Your task to perform on an android device: Open Google Chrome Image 0: 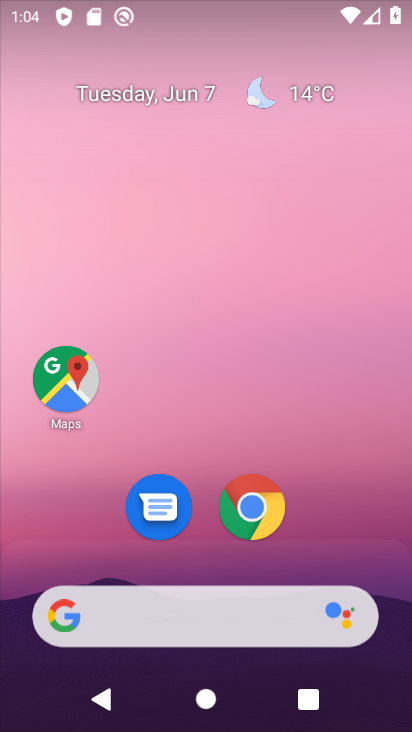
Step 0: click (251, 504)
Your task to perform on an android device: Open Google Chrome Image 1: 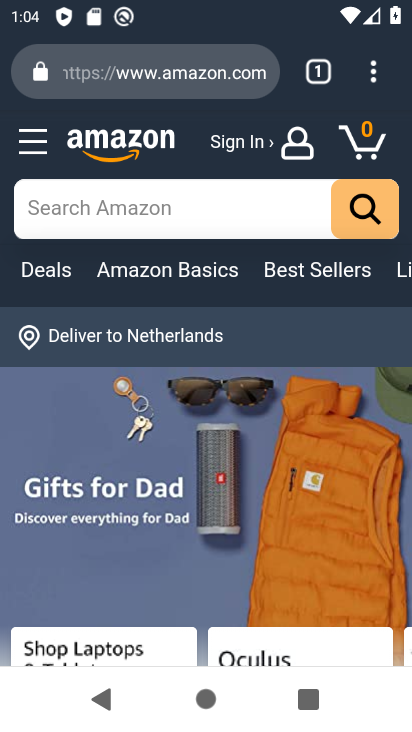
Step 1: task complete